Your task to perform on an android device: change notification settings in the gmail app Image 0: 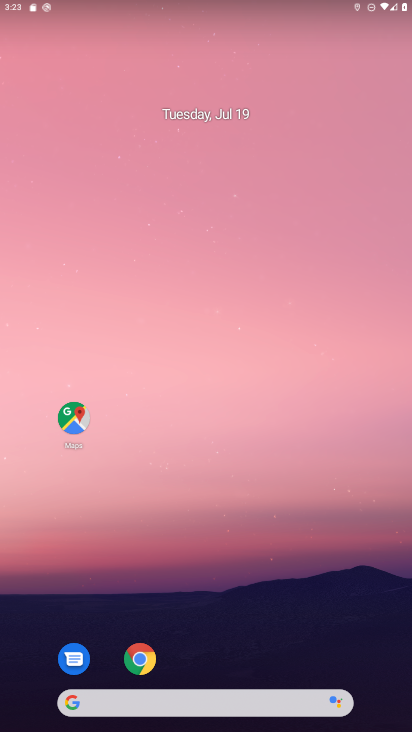
Step 0: drag from (269, 650) to (334, 91)
Your task to perform on an android device: change notification settings in the gmail app Image 1: 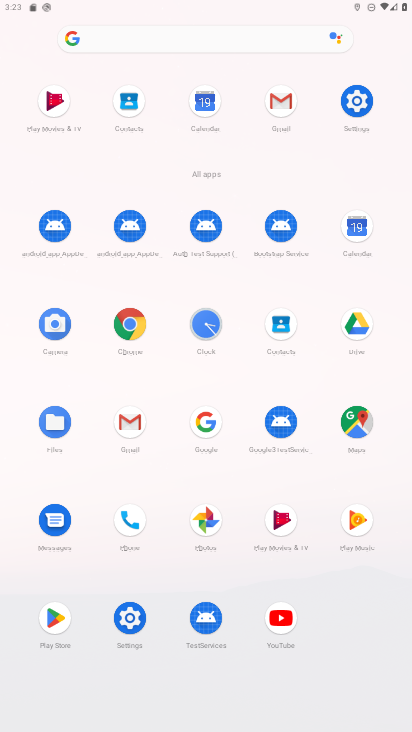
Step 1: click (278, 99)
Your task to perform on an android device: change notification settings in the gmail app Image 2: 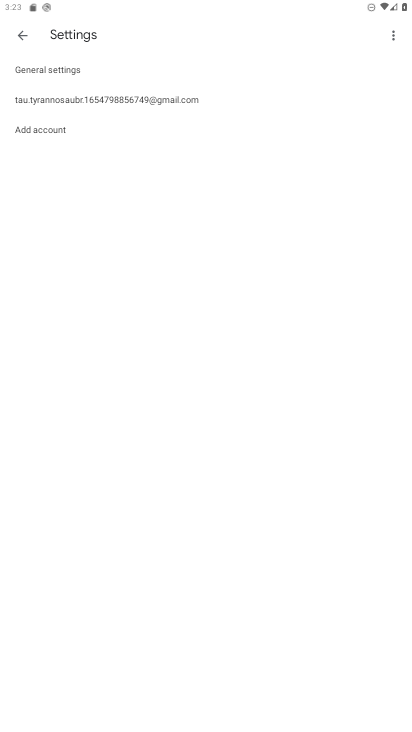
Step 2: click (117, 93)
Your task to perform on an android device: change notification settings in the gmail app Image 3: 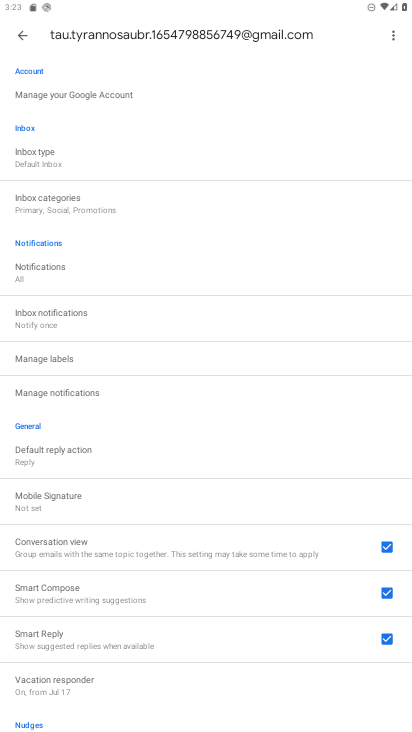
Step 3: click (68, 399)
Your task to perform on an android device: change notification settings in the gmail app Image 4: 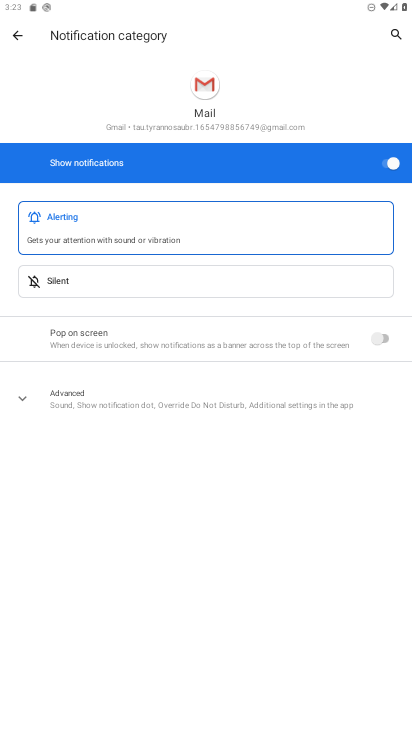
Step 4: click (386, 154)
Your task to perform on an android device: change notification settings in the gmail app Image 5: 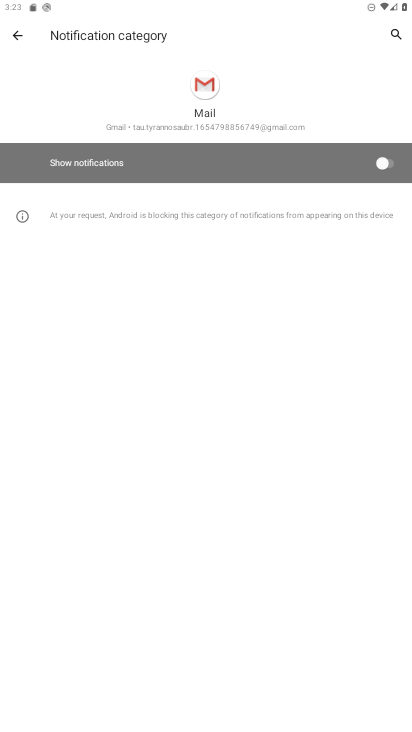
Step 5: task complete